Your task to perform on an android device: Open location settings Image 0: 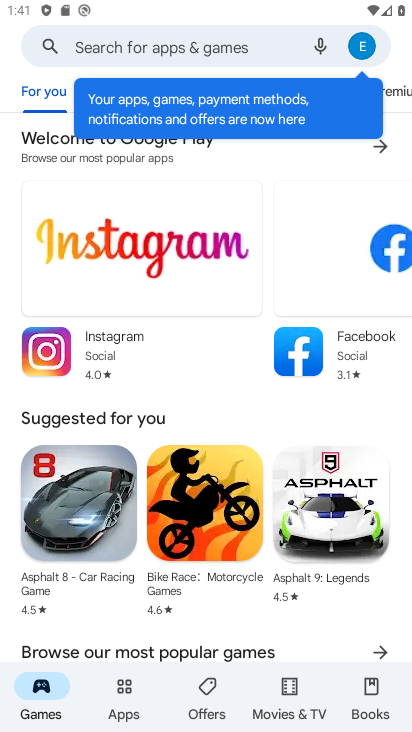
Step 0: press home button
Your task to perform on an android device: Open location settings Image 1: 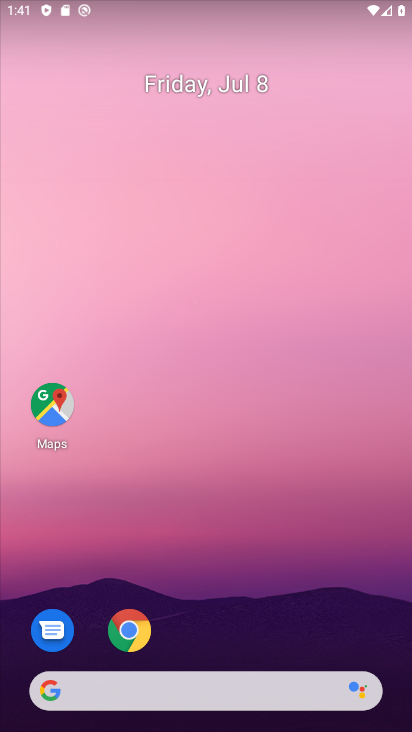
Step 1: drag from (214, 648) to (178, 5)
Your task to perform on an android device: Open location settings Image 2: 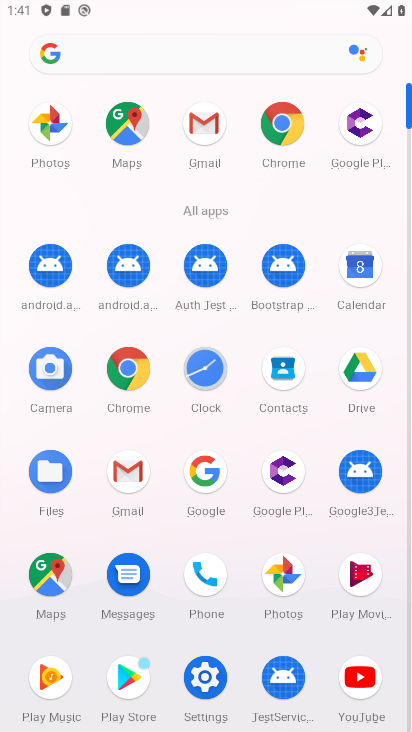
Step 2: click (200, 680)
Your task to perform on an android device: Open location settings Image 3: 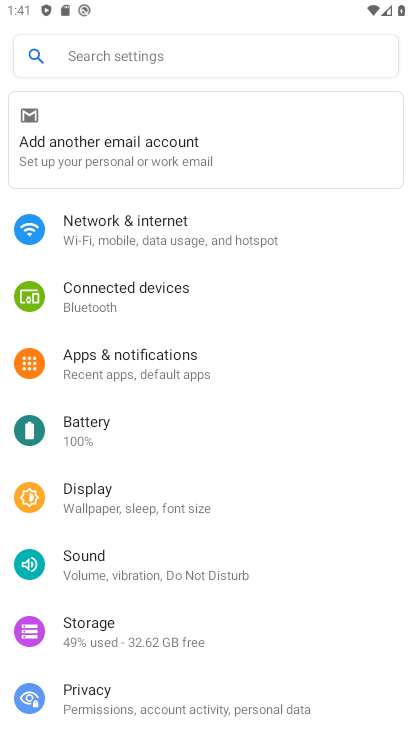
Step 3: drag from (205, 690) to (219, 133)
Your task to perform on an android device: Open location settings Image 4: 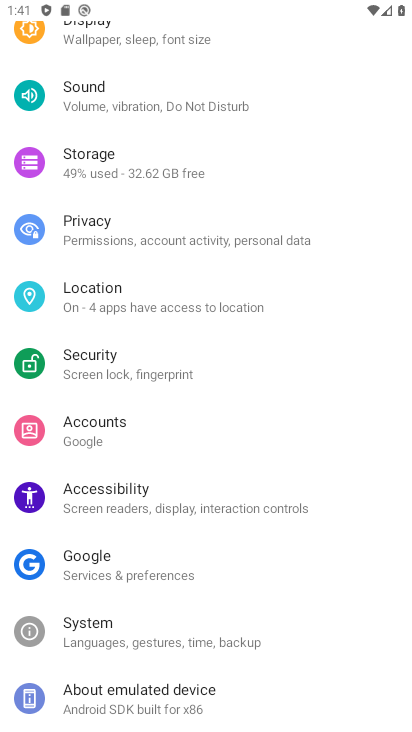
Step 4: click (187, 296)
Your task to perform on an android device: Open location settings Image 5: 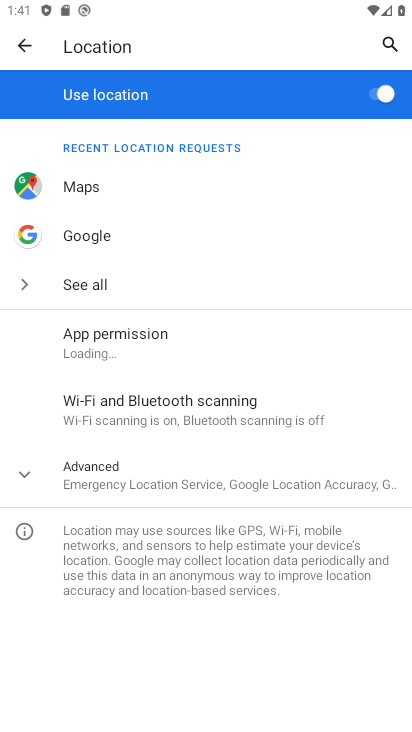
Step 5: click (76, 482)
Your task to perform on an android device: Open location settings Image 6: 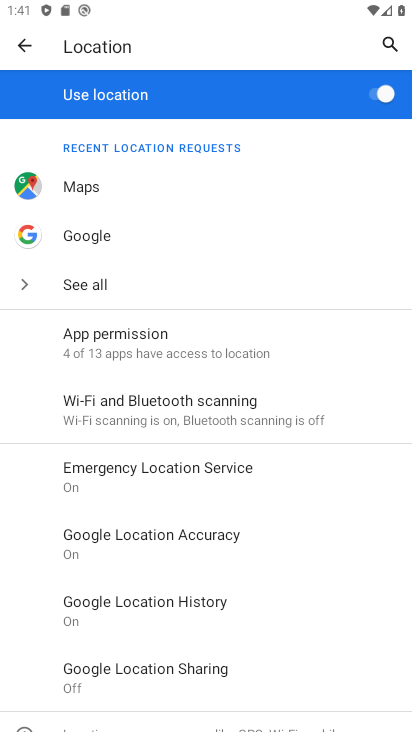
Step 6: task complete